Your task to perform on an android device: Set the phone to "Do not disturb". Image 0: 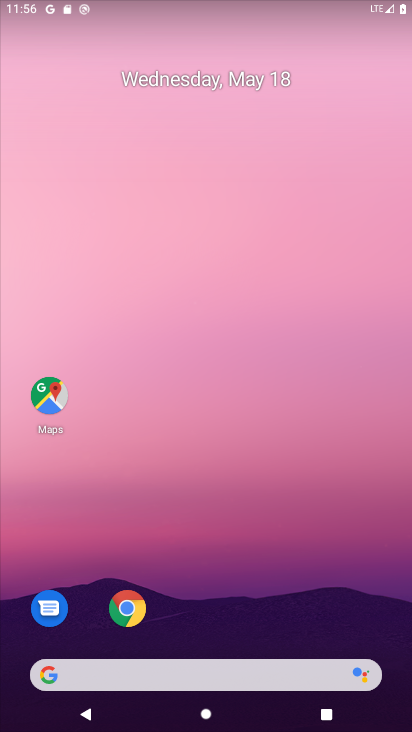
Step 0: drag from (207, 607) to (177, 137)
Your task to perform on an android device: Set the phone to "Do not disturb". Image 1: 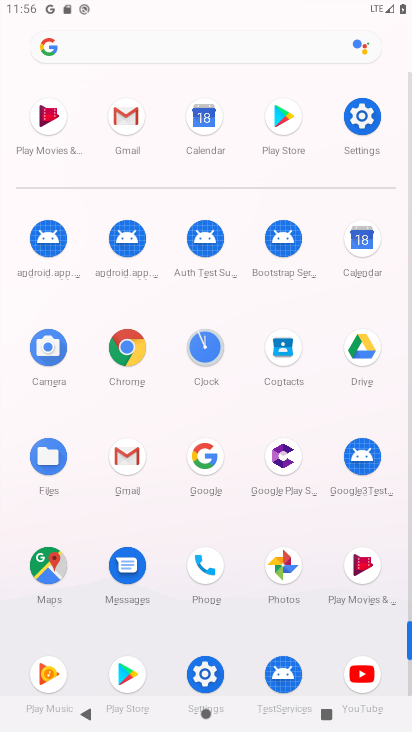
Step 1: click (370, 125)
Your task to perform on an android device: Set the phone to "Do not disturb". Image 2: 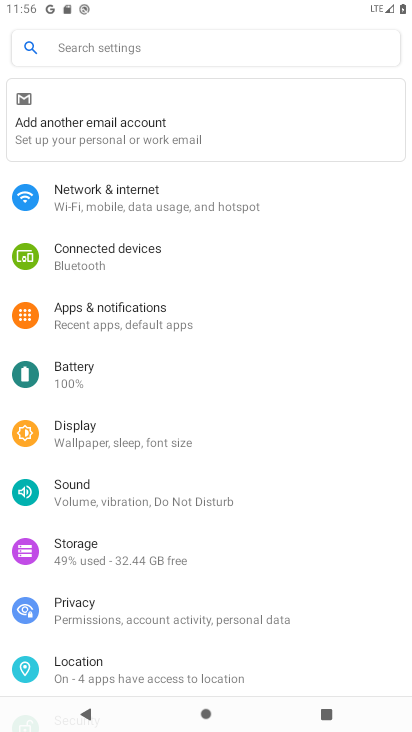
Step 2: click (152, 509)
Your task to perform on an android device: Set the phone to "Do not disturb". Image 3: 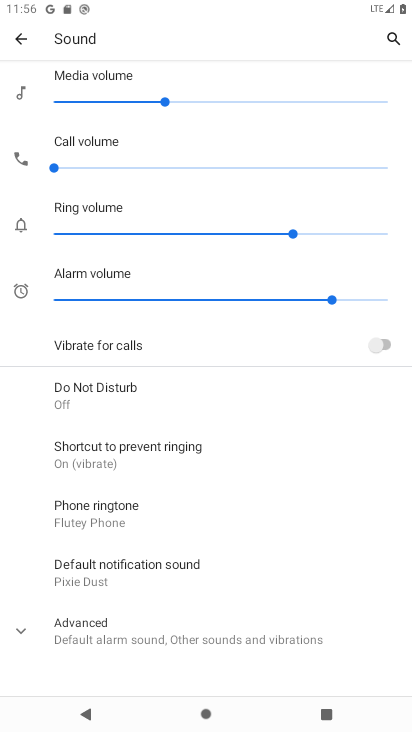
Step 3: click (104, 394)
Your task to perform on an android device: Set the phone to "Do not disturb". Image 4: 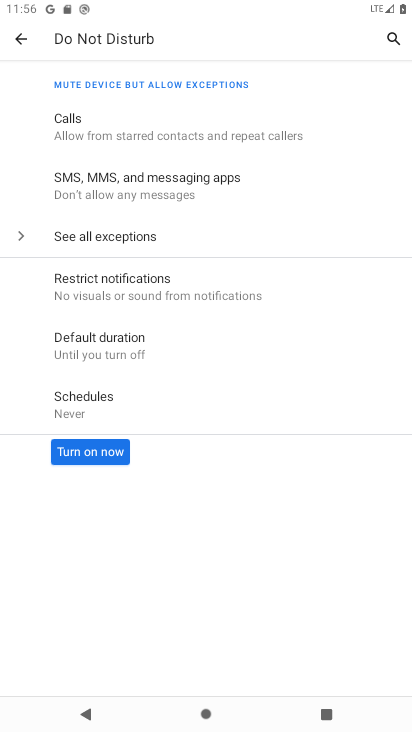
Step 4: click (95, 456)
Your task to perform on an android device: Set the phone to "Do not disturb". Image 5: 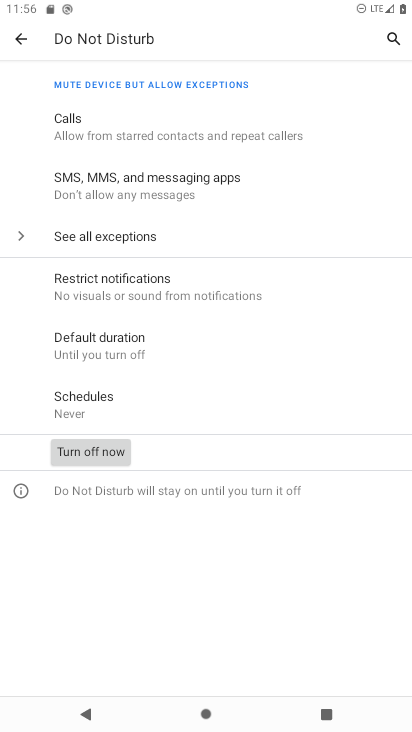
Step 5: task complete